Your task to perform on an android device: toggle data saver in the chrome app Image 0: 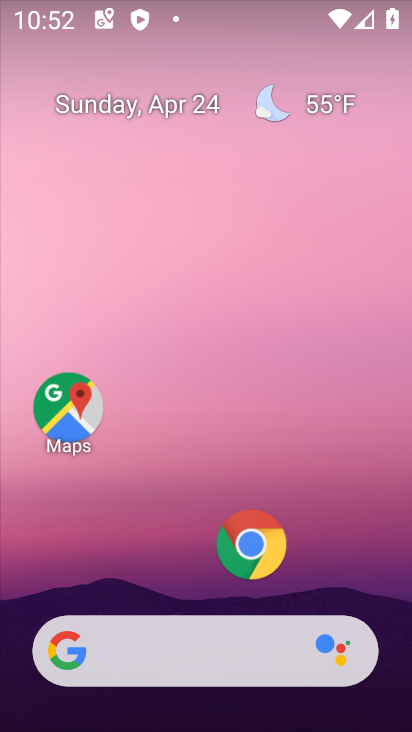
Step 0: click (239, 536)
Your task to perform on an android device: toggle data saver in the chrome app Image 1: 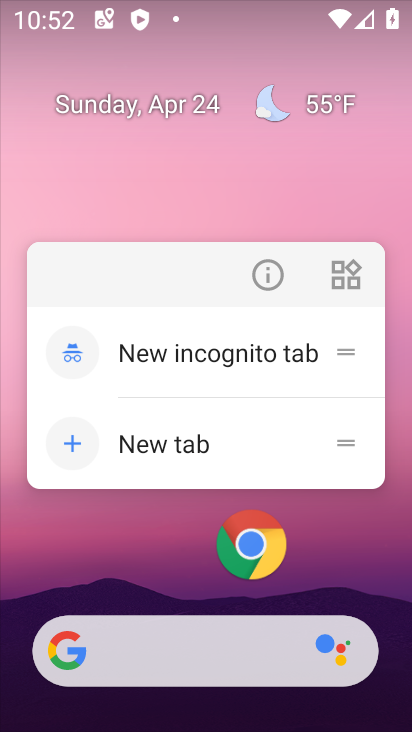
Step 1: click (239, 536)
Your task to perform on an android device: toggle data saver in the chrome app Image 2: 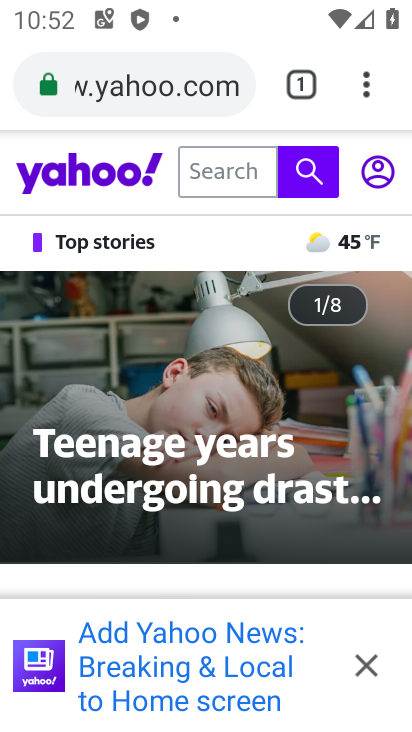
Step 2: drag from (358, 91) to (110, 599)
Your task to perform on an android device: toggle data saver in the chrome app Image 3: 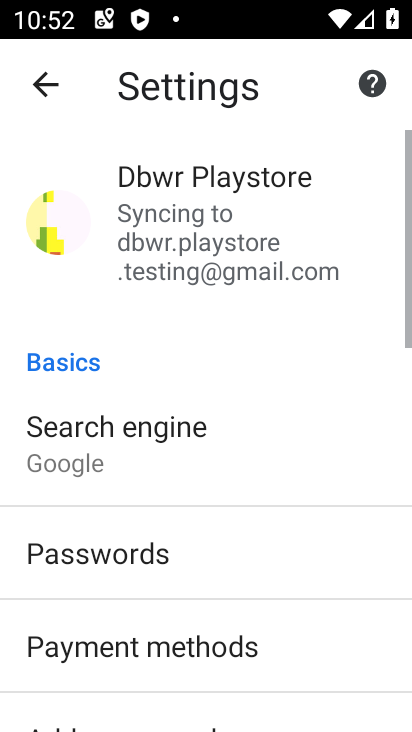
Step 3: drag from (179, 632) to (164, 344)
Your task to perform on an android device: toggle data saver in the chrome app Image 4: 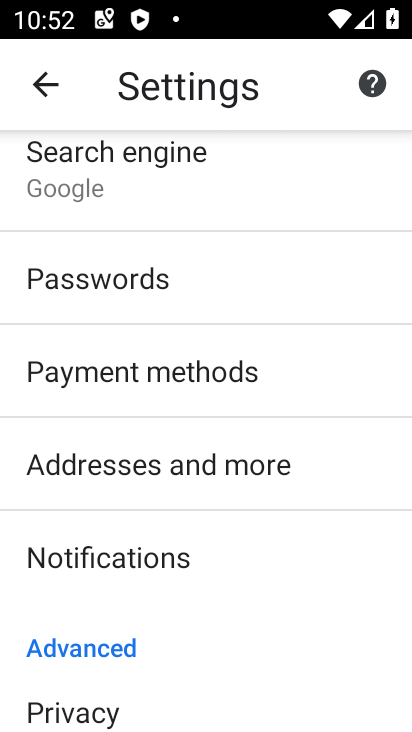
Step 4: drag from (166, 547) to (177, 359)
Your task to perform on an android device: toggle data saver in the chrome app Image 5: 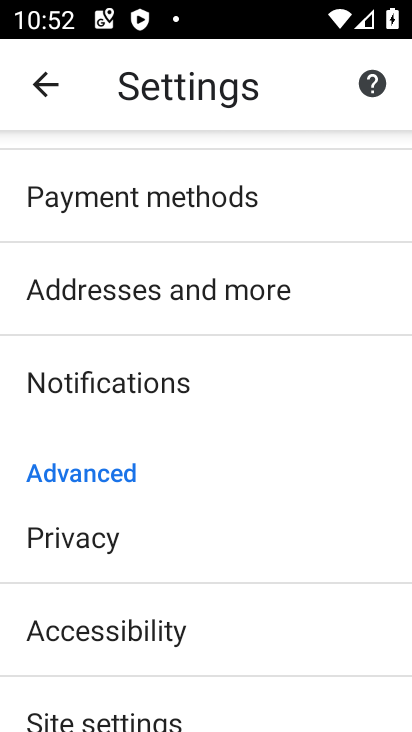
Step 5: drag from (178, 593) to (189, 382)
Your task to perform on an android device: toggle data saver in the chrome app Image 6: 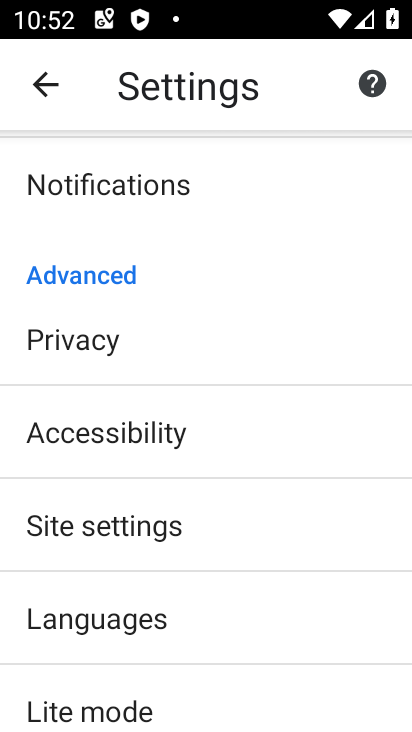
Step 6: drag from (191, 633) to (203, 435)
Your task to perform on an android device: toggle data saver in the chrome app Image 7: 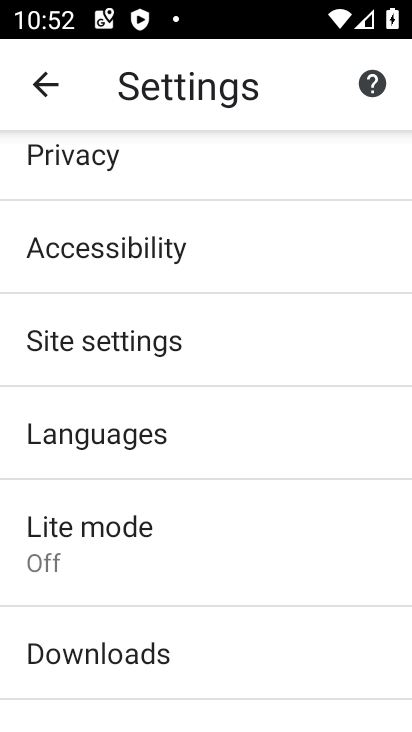
Step 7: click (153, 550)
Your task to perform on an android device: toggle data saver in the chrome app Image 8: 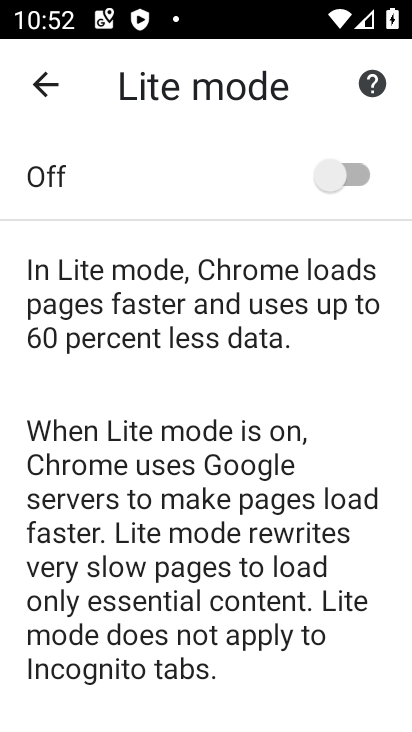
Step 8: click (349, 177)
Your task to perform on an android device: toggle data saver in the chrome app Image 9: 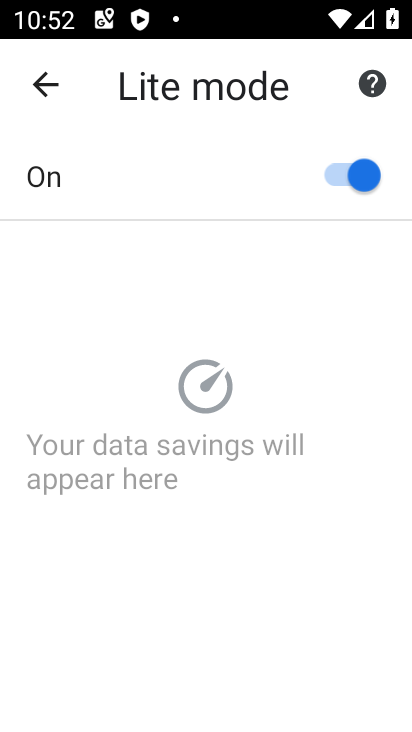
Step 9: task complete